Your task to perform on an android device: uninstall "Adobe Acrobat Reader: Edit PDF" Image 0: 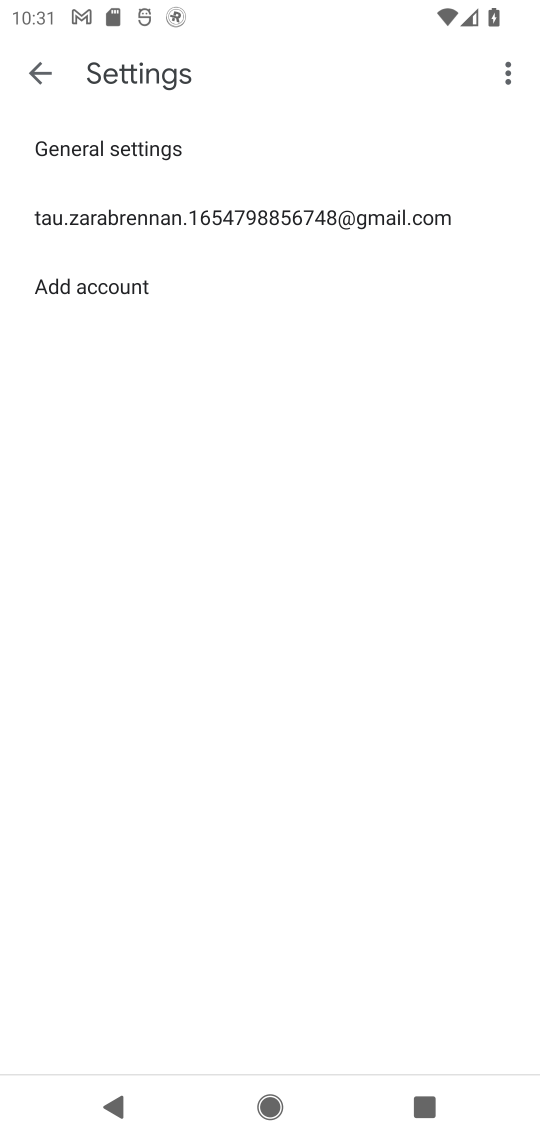
Step 0: press home button
Your task to perform on an android device: uninstall "Adobe Acrobat Reader: Edit PDF" Image 1: 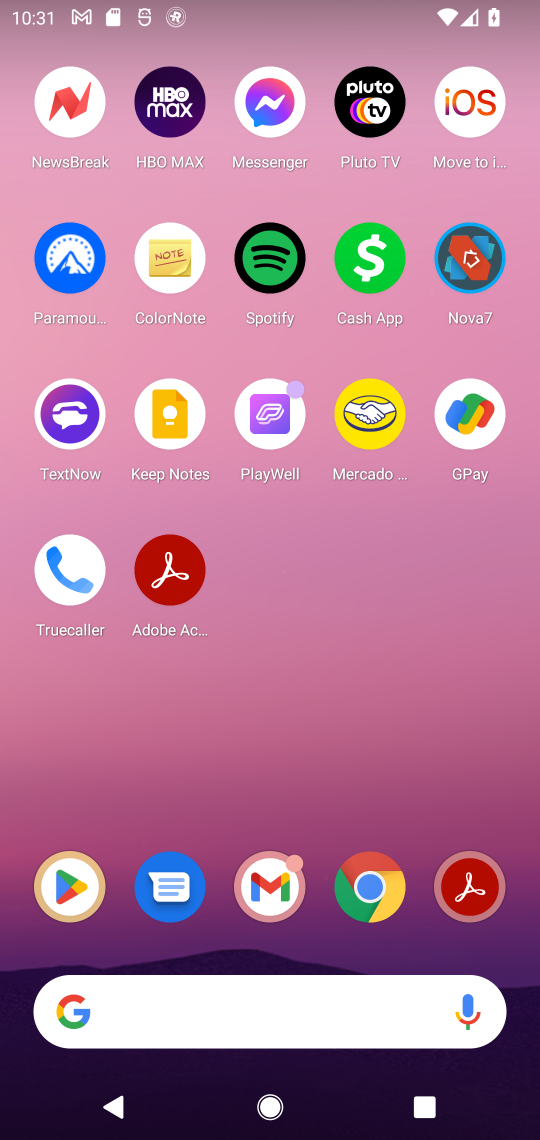
Step 1: click (80, 897)
Your task to perform on an android device: uninstall "Adobe Acrobat Reader: Edit PDF" Image 2: 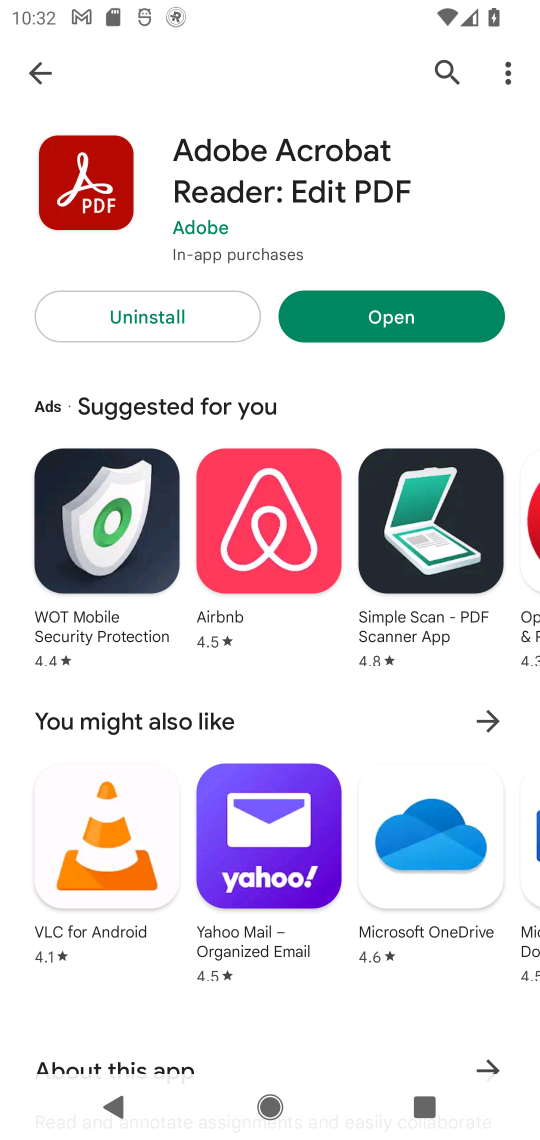
Step 2: click (439, 75)
Your task to perform on an android device: uninstall "Adobe Acrobat Reader: Edit PDF" Image 3: 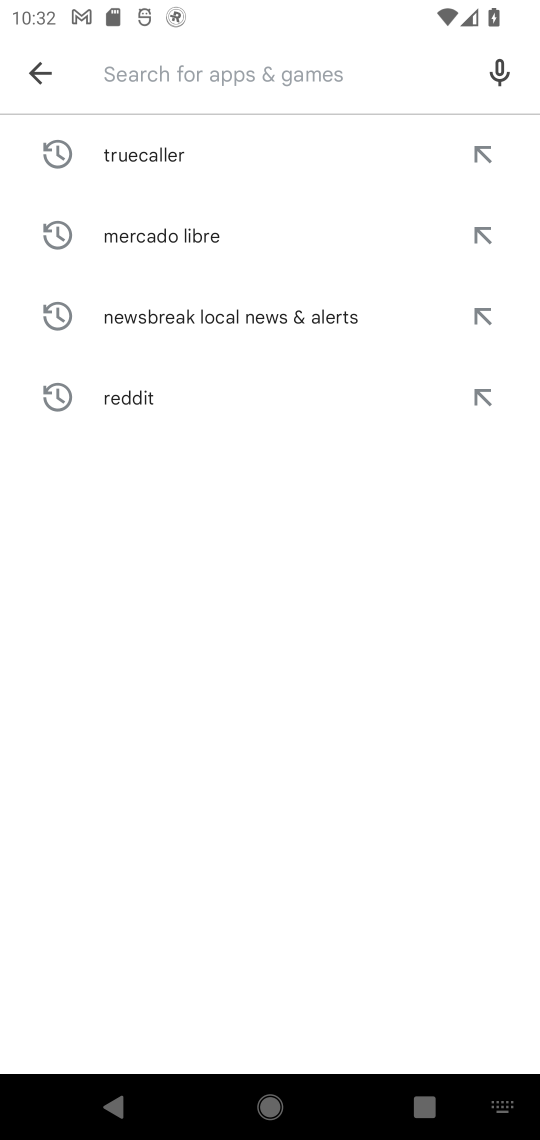
Step 3: type "adobe acrobat reader: edit PDF"
Your task to perform on an android device: uninstall "Adobe Acrobat Reader: Edit PDF" Image 4: 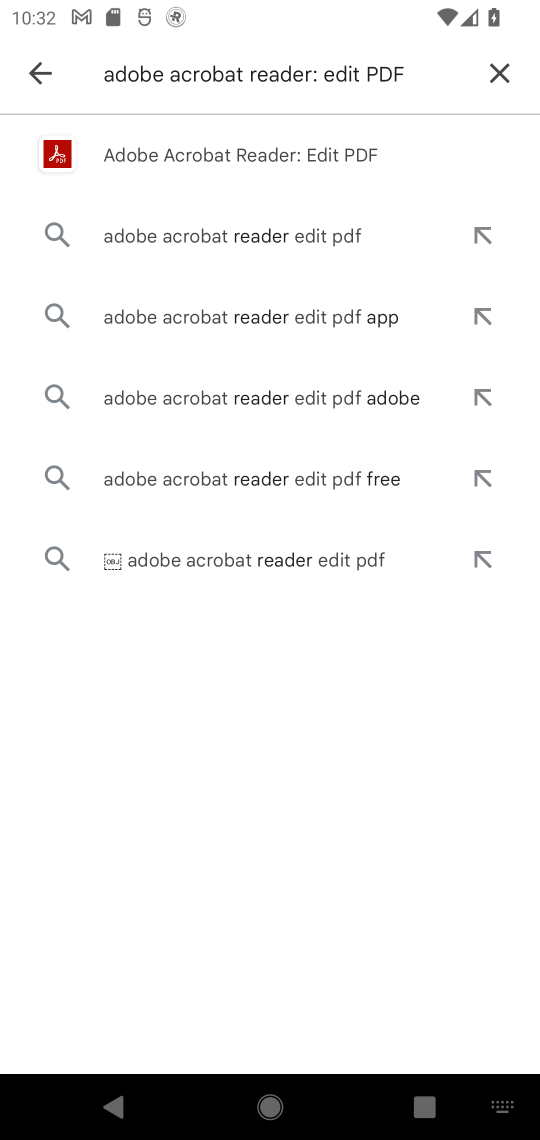
Step 4: click (335, 140)
Your task to perform on an android device: uninstall "Adobe Acrobat Reader: Edit PDF" Image 5: 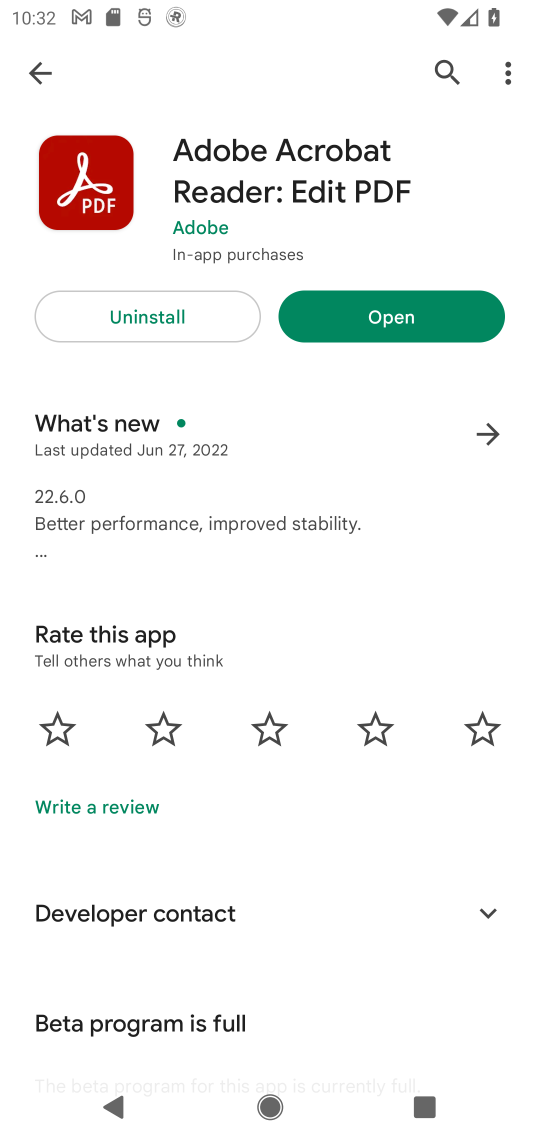
Step 5: click (171, 318)
Your task to perform on an android device: uninstall "Adobe Acrobat Reader: Edit PDF" Image 6: 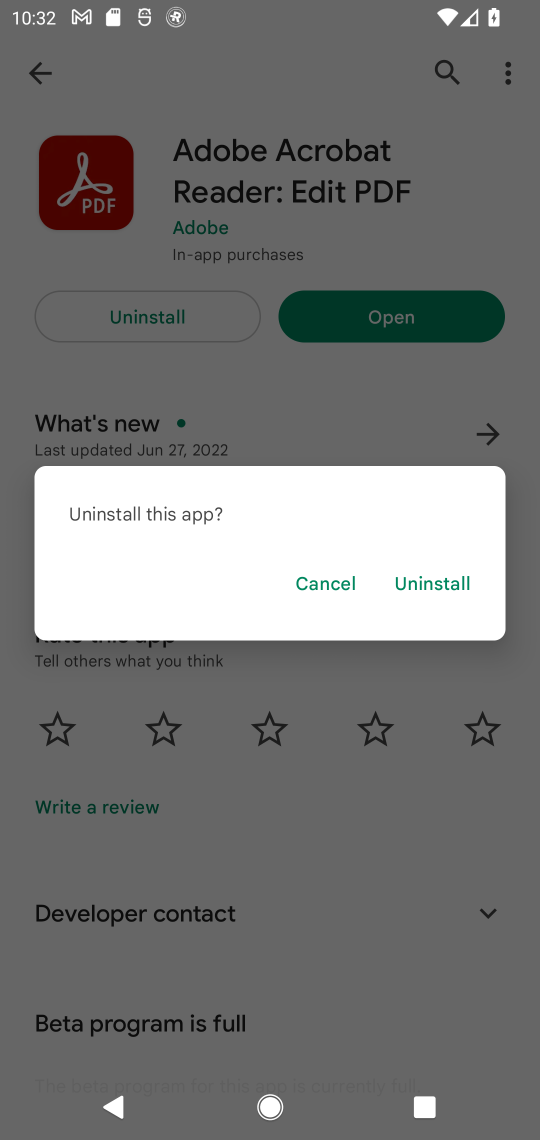
Step 6: click (431, 593)
Your task to perform on an android device: uninstall "Adobe Acrobat Reader: Edit PDF" Image 7: 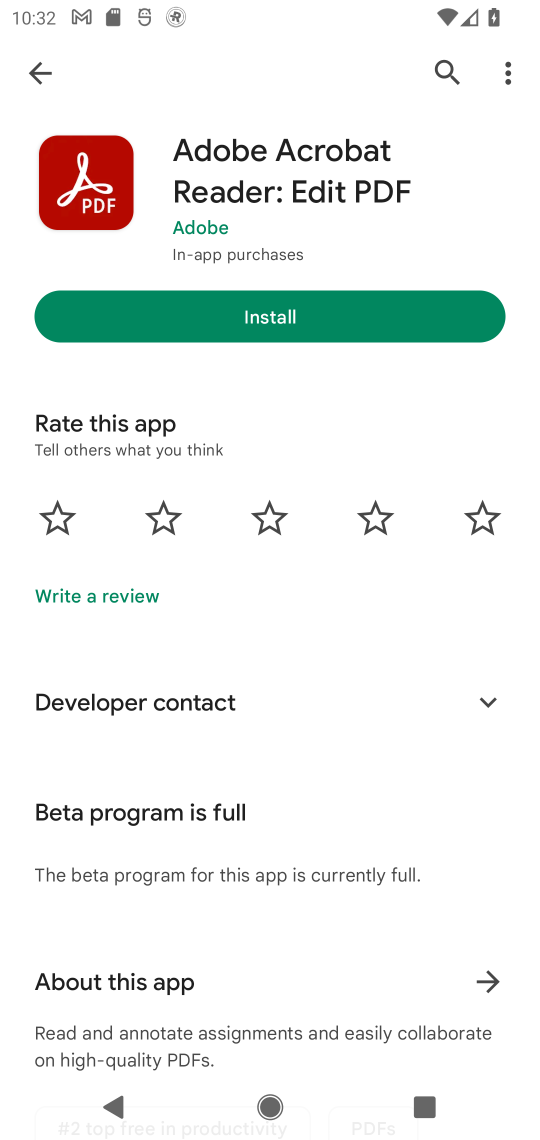
Step 7: task complete